Your task to perform on an android device: Go to wifi settings Image 0: 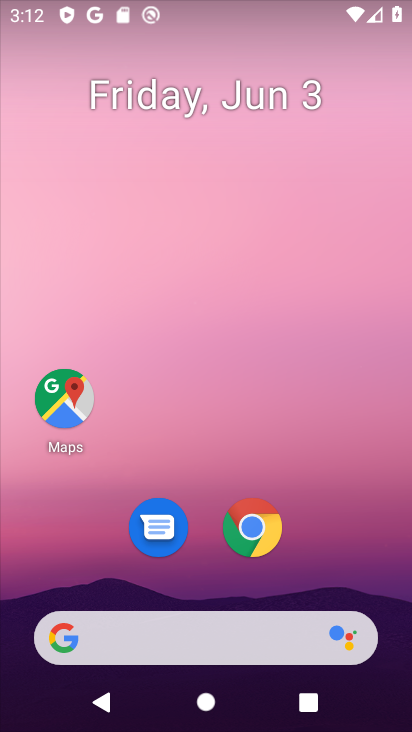
Step 0: drag from (295, 580) to (241, 295)
Your task to perform on an android device: Go to wifi settings Image 1: 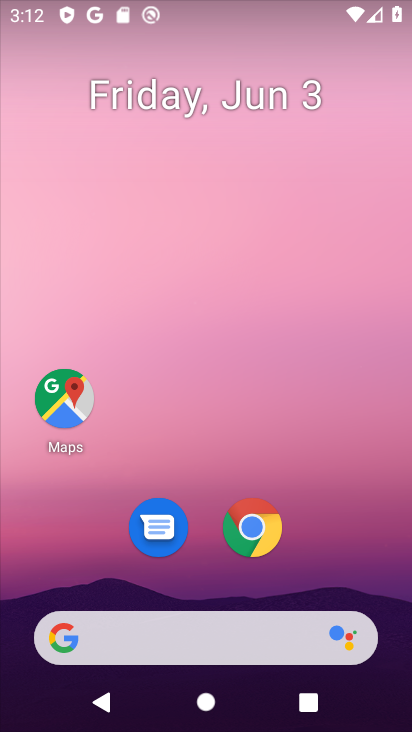
Step 1: drag from (209, 583) to (175, 182)
Your task to perform on an android device: Go to wifi settings Image 2: 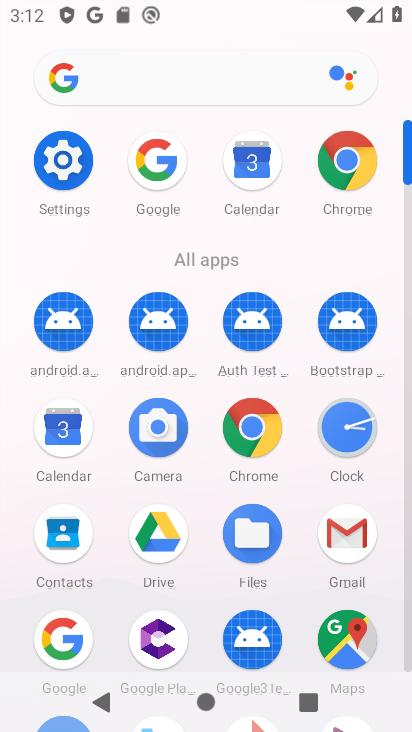
Step 2: click (64, 160)
Your task to perform on an android device: Go to wifi settings Image 3: 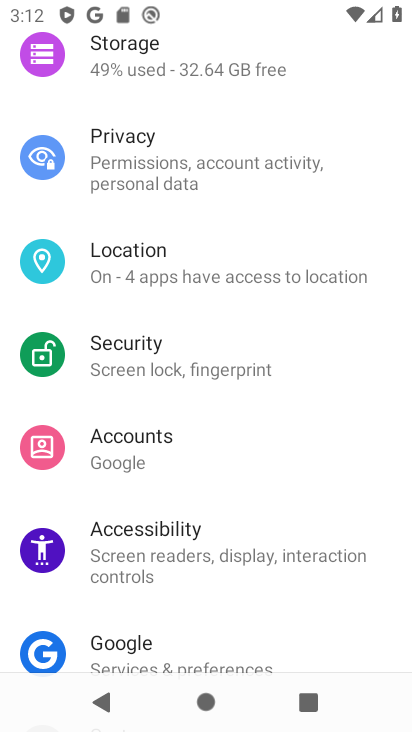
Step 3: drag from (166, 195) to (204, 632)
Your task to perform on an android device: Go to wifi settings Image 4: 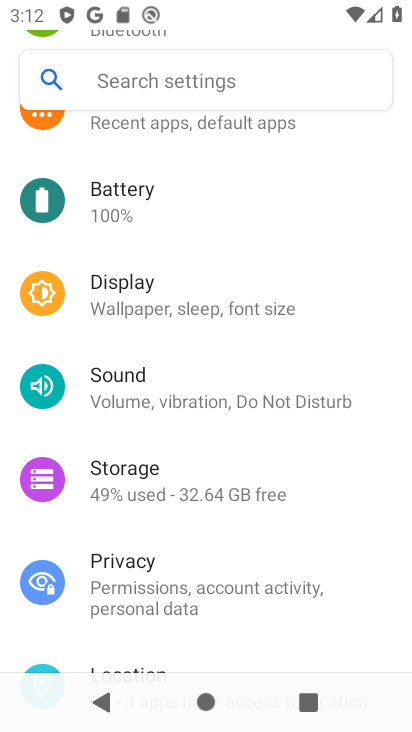
Step 4: drag from (194, 194) to (195, 608)
Your task to perform on an android device: Go to wifi settings Image 5: 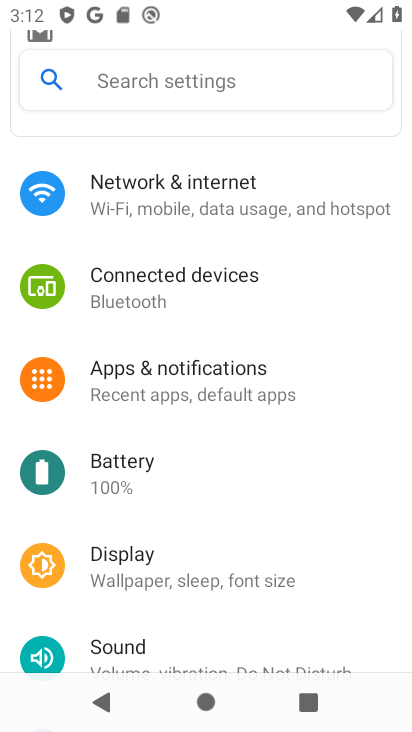
Step 5: click (195, 181)
Your task to perform on an android device: Go to wifi settings Image 6: 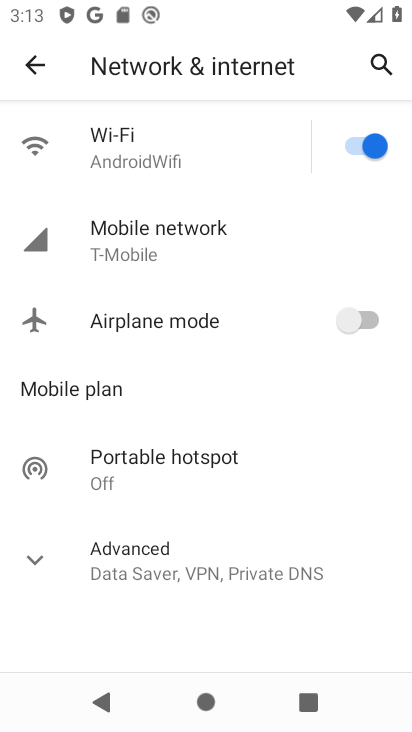
Step 6: task complete